Your task to perform on an android device: Go to eBay Image 0: 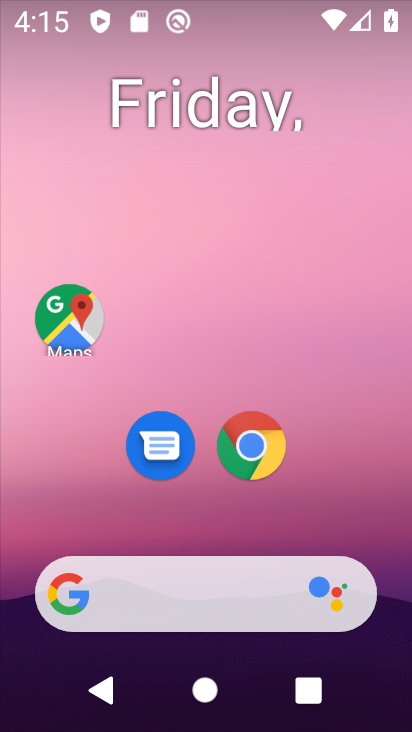
Step 0: press home button
Your task to perform on an android device: Go to eBay Image 1: 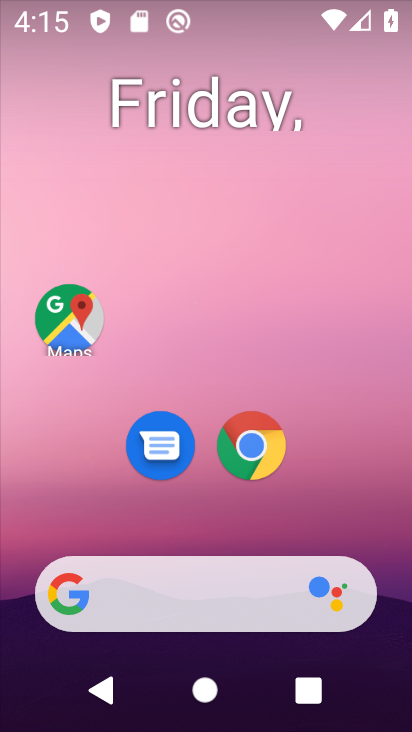
Step 1: press home button
Your task to perform on an android device: Go to eBay Image 2: 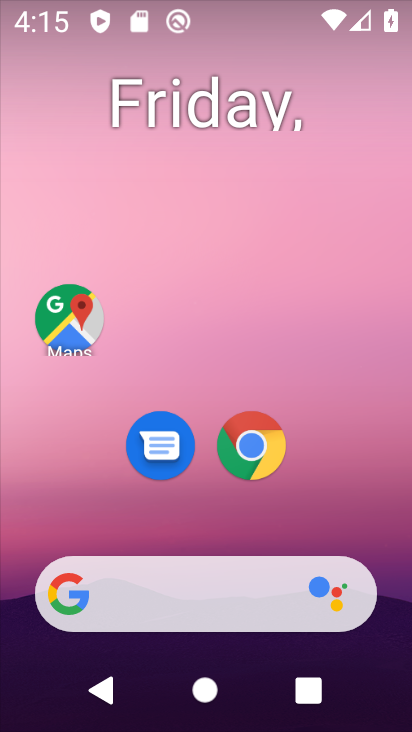
Step 2: click (66, 594)
Your task to perform on an android device: Go to eBay Image 3: 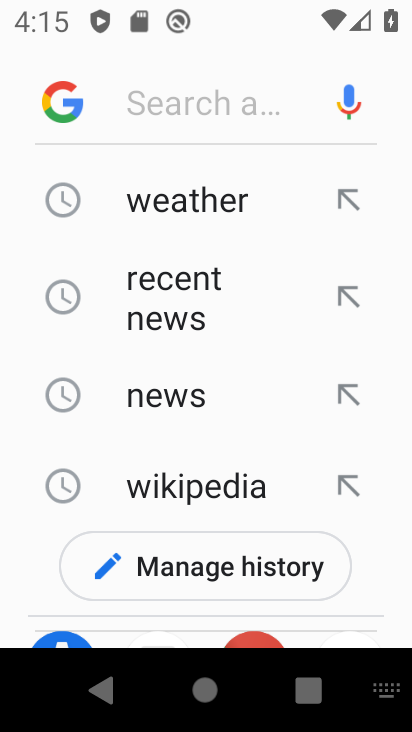
Step 3: type "ebay"
Your task to perform on an android device: Go to eBay Image 4: 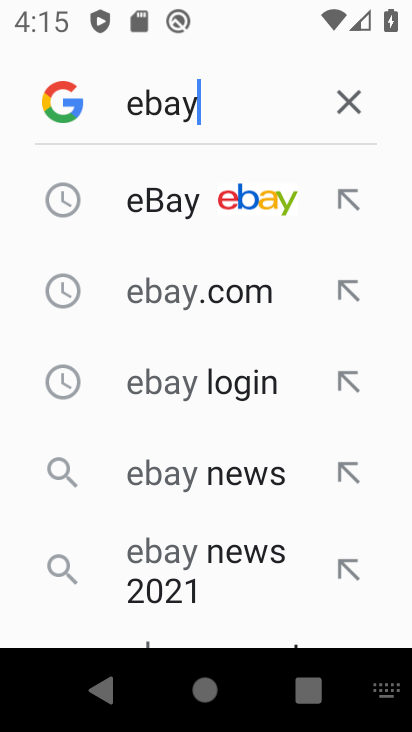
Step 4: click (185, 209)
Your task to perform on an android device: Go to eBay Image 5: 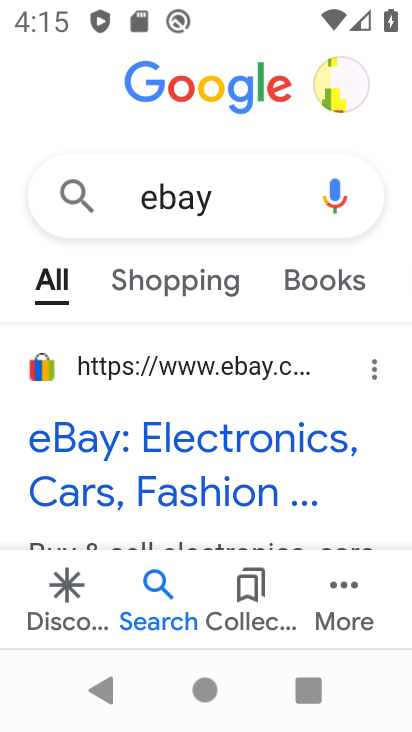
Step 5: click (149, 440)
Your task to perform on an android device: Go to eBay Image 6: 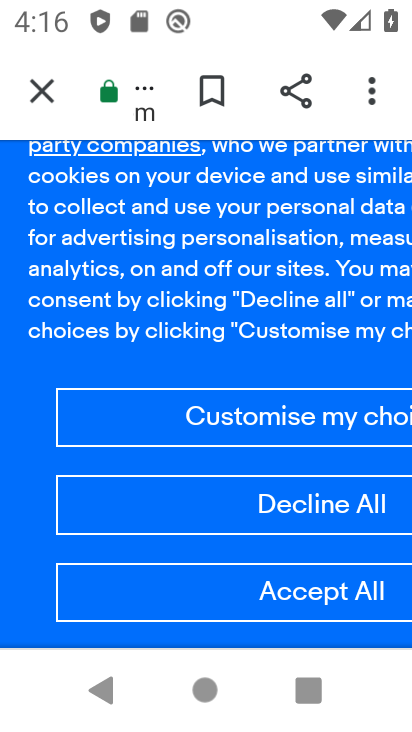
Step 6: task complete